Your task to perform on an android device: Go to Wikipedia Image 0: 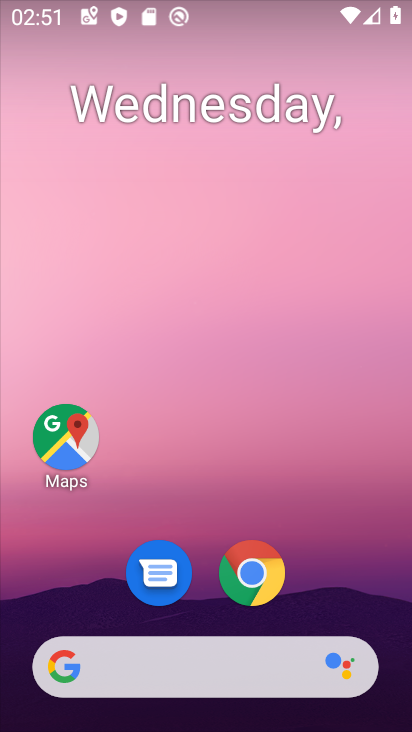
Step 0: drag from (322, 584) to (295, 36)
Your task to perform on an android device: Go to Wikipedia Image 1: 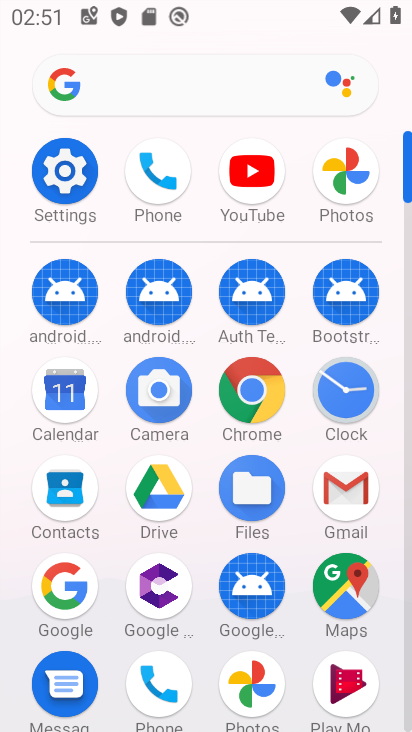
Step 1: click (248, 389)
Your task to perform on an android device: Go to Wikipedia Image 2: 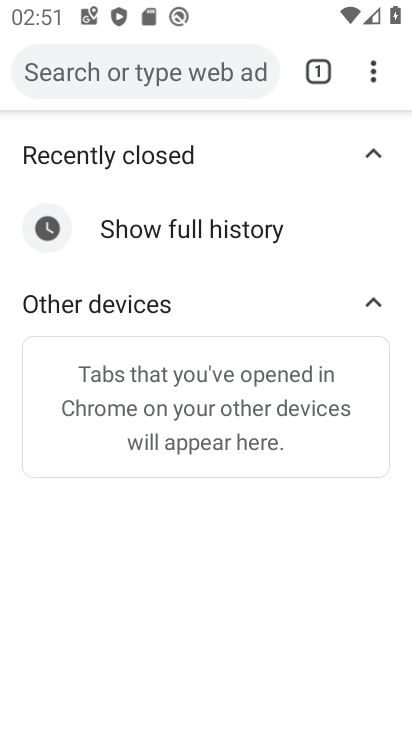
Step 2: click (240, 85)
Your task to perform on an android device: Go to Wikipedia Image 3: 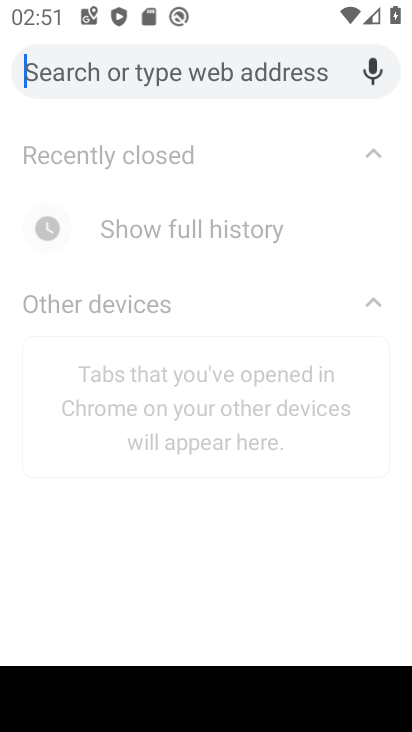
Step 3: type "Wikipedia"
Your task to perform on an android device: Go to Wikipedia Image 4: 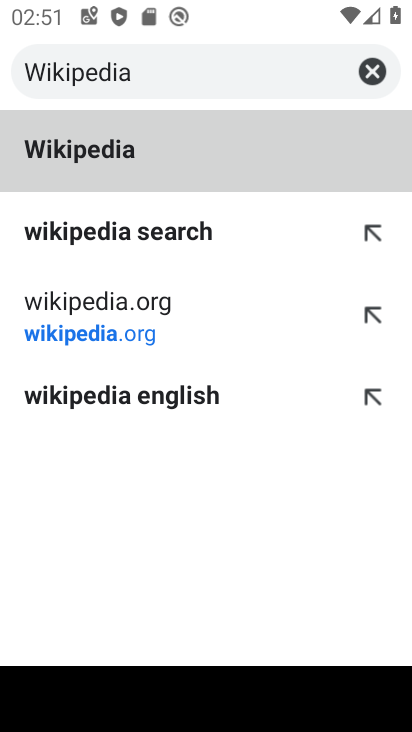
Step 4: click (99, 151)
Your task to perform on an android device: Go to Wikipedia Image 5: 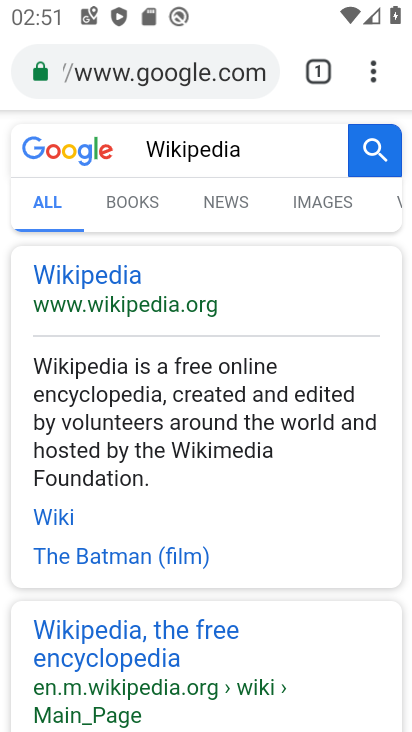
Step 5: click (97, 267)
Your task to perform on an android device: Go to Wikipedia Image 6: 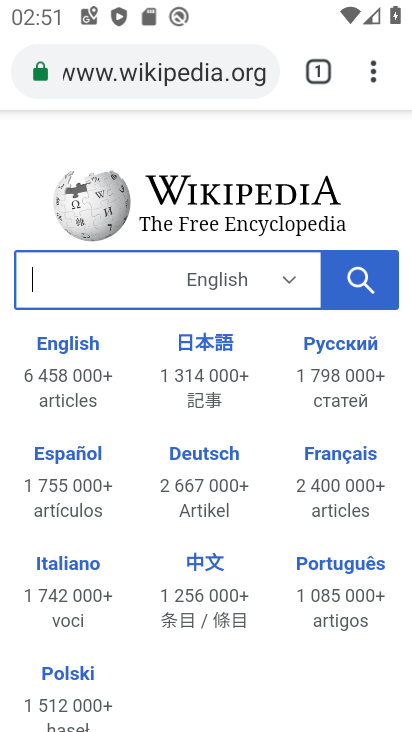
Step 6: task complete